Your task to perform on an android device: open chrome privacy settings Image 0: 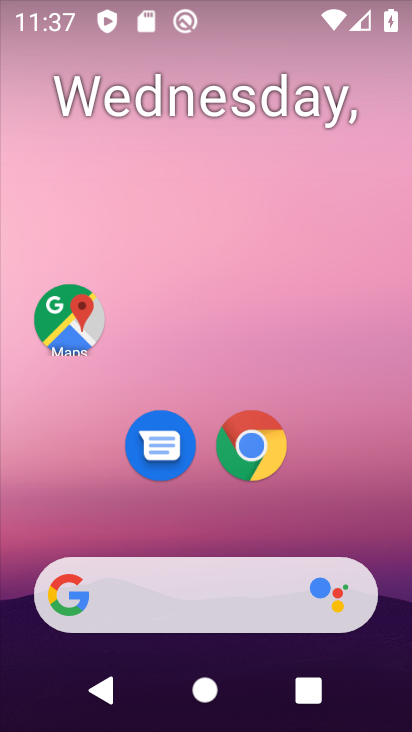
Step 0: click (264, 438)
Your task to perform on an android device: open chrome privacy settings Image 1: 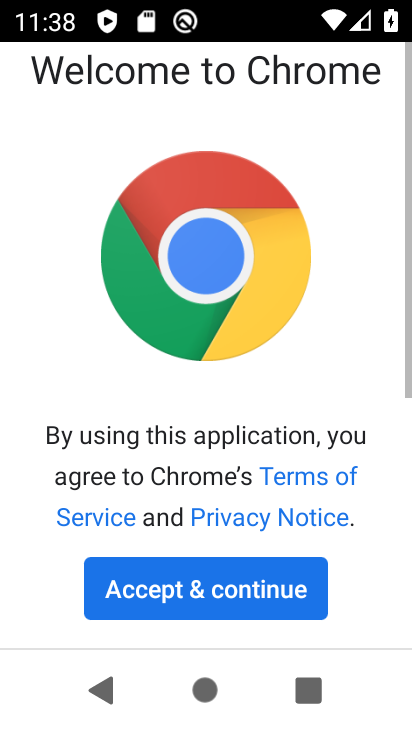
Step 1: click (226, 567)
Your task to perform on an android device: open chrome privacy settings Image 2: 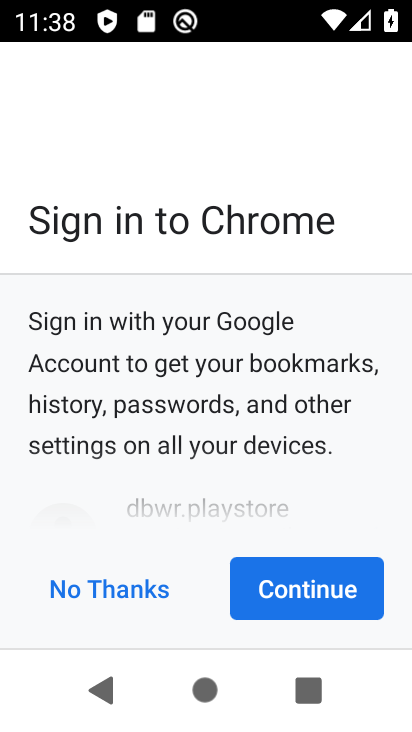
Step 2: click (278, 591)
Your task to perform on an android device: open chrome privacy settings Image 3: 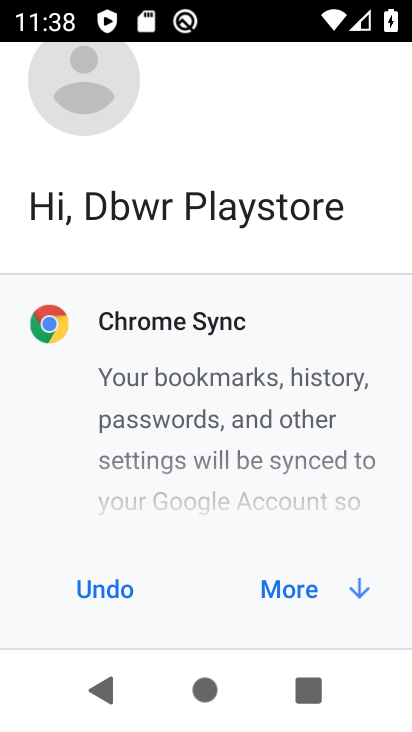
Step 3: click (294, 586)
Your task to perform on an android device: open chrome privacy settings Image 4: 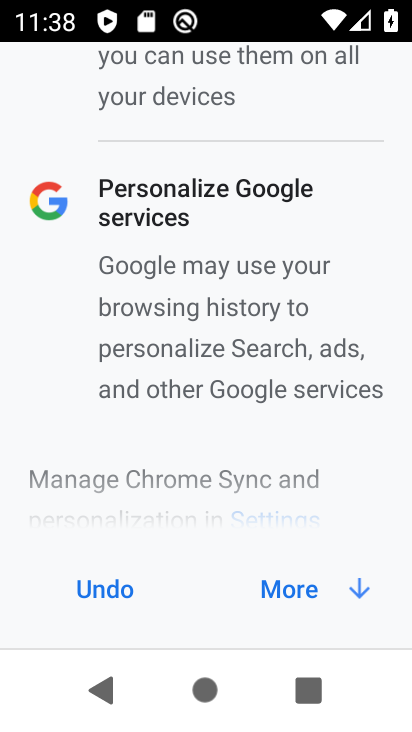
Step 4: click (296, 587)
Your task to perform on an android device: open chrome privacy settings Image 5: 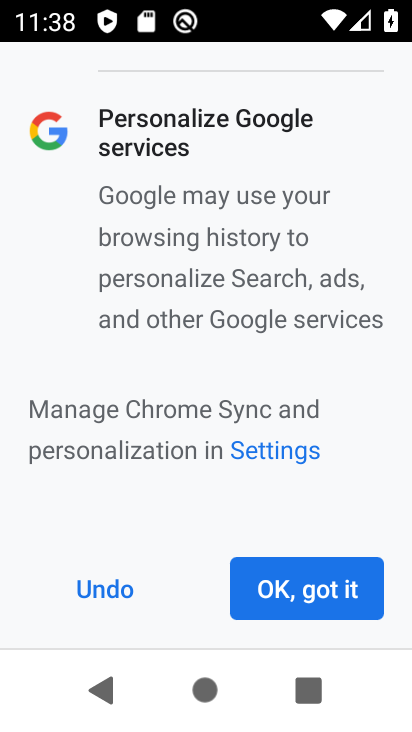
Step 5: click (292, 587)
Your task to perform on an android device: open chrome privacy settings Image 6: 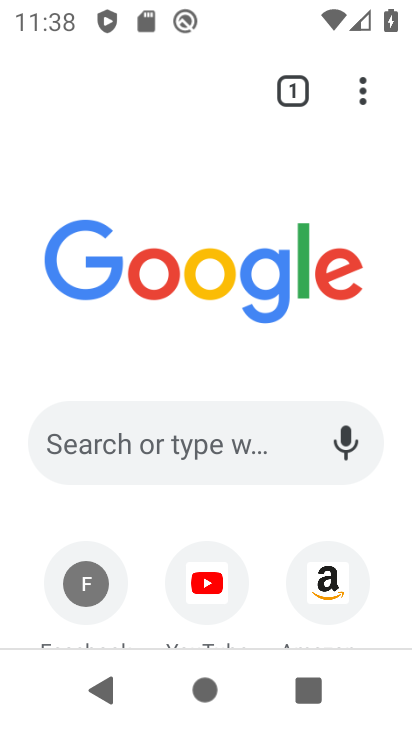
Step 6: drag from (361, 85) to (120, 472)
Your task to perform on an android device: open chrome privacy settings Image 7: 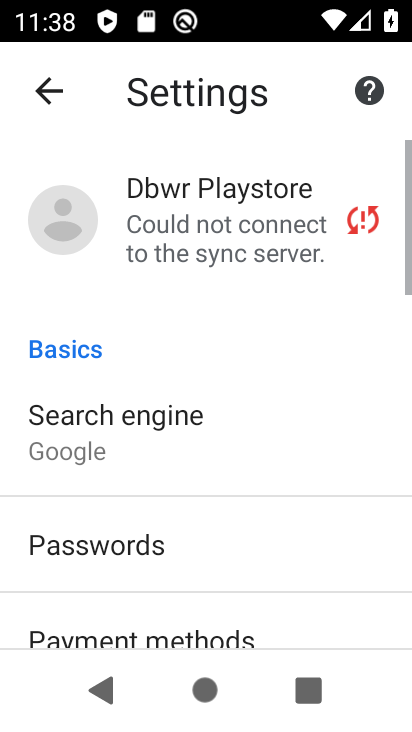
Step 7: drag from (125, 561) to (196, 78)
Your task to perform on an android device: open chrome privacy settings Image 8: 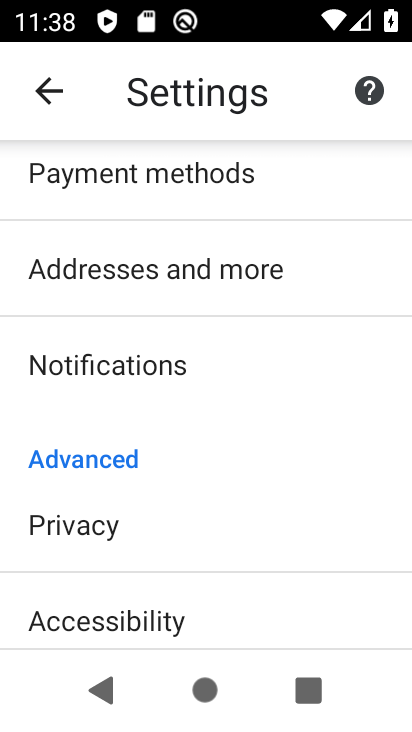
Step 8: click (100, 532)
Your task to perform on an android device: open chrome privacy settings Image 9: 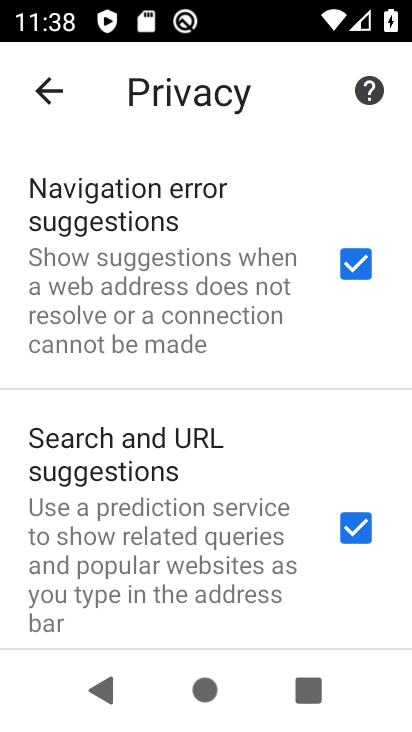
Step 9: task complete